Your task to perform on an android device: What is the price of a 12' ladder at Lowes? Image 0: 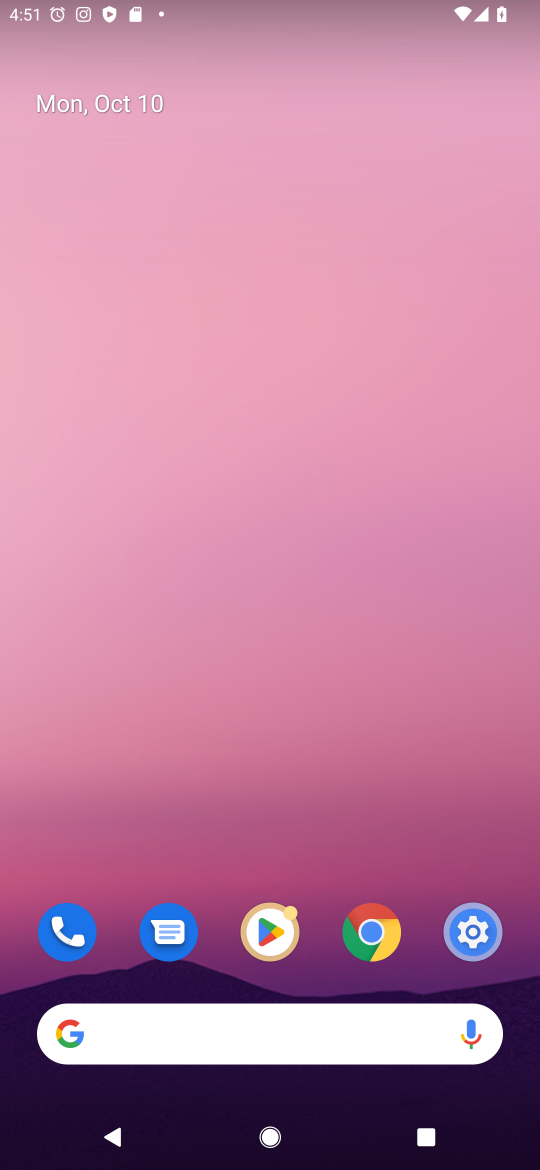
Step 0: press home button
Your task to perform on an android device: What is the price of a 12' ladder at Lowes? Image 1: 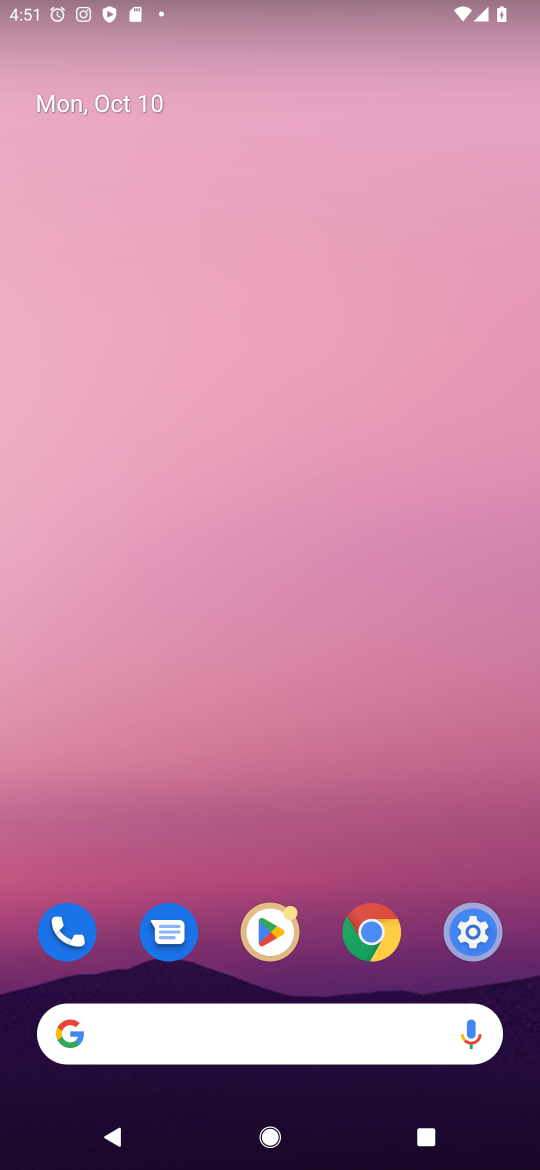
Step 1: click (287, 1035)
Your task to perform on an android device: What is the price of a 12' ladder at Lowes? Image 2: 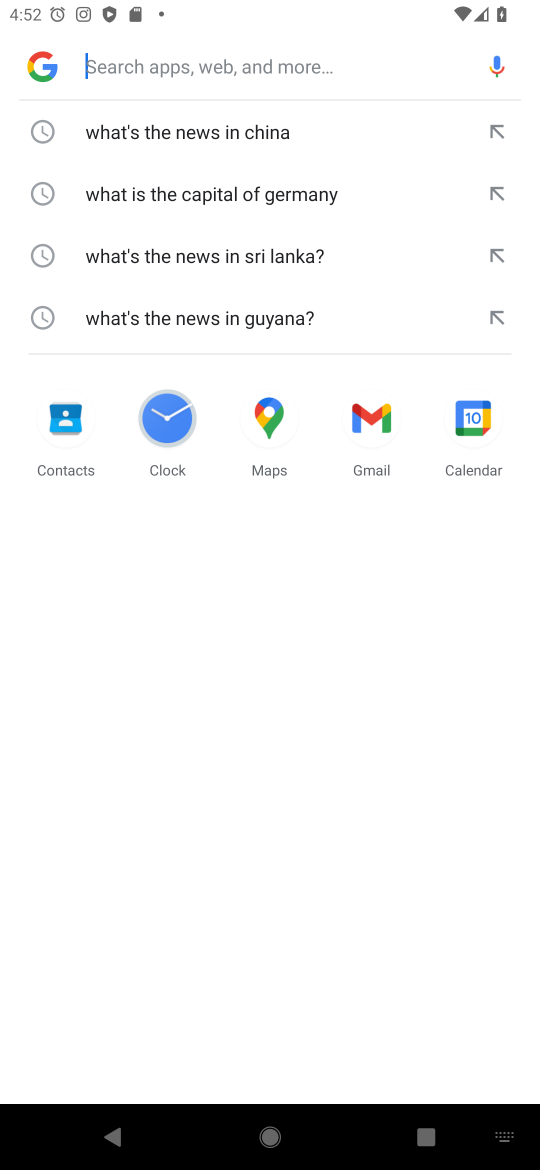
Step 2: type "What is the price of a 12' ladder at Lowes"
Your task to perform on an android device: What is the price of a 12' ladder at Lowes? Image 3: 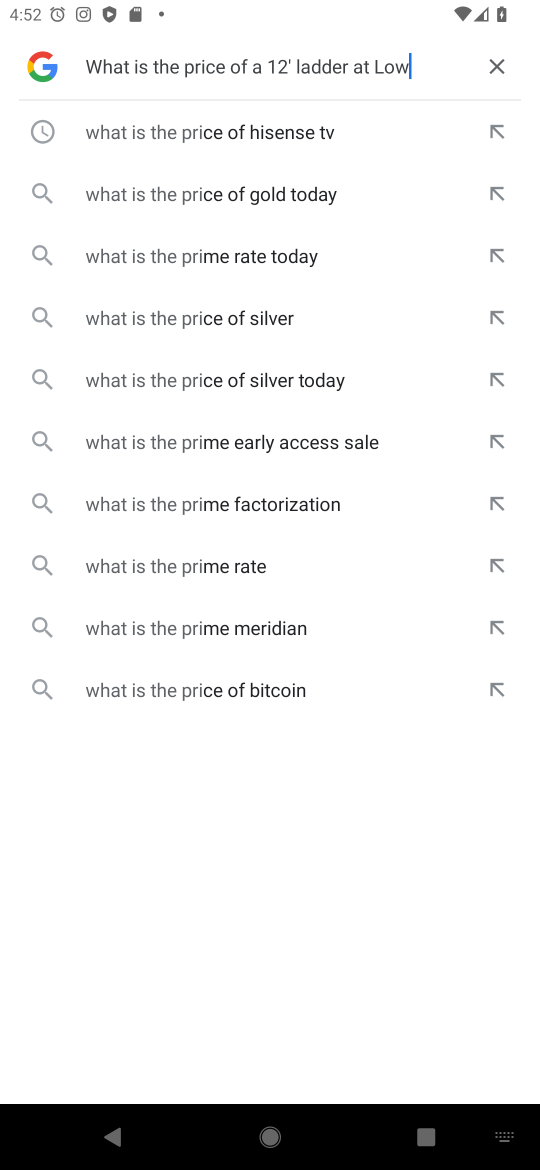
Step 3: press enter
Your task to perform on an android device: What is the price of a 12' ladder at Lowes? Image 4: 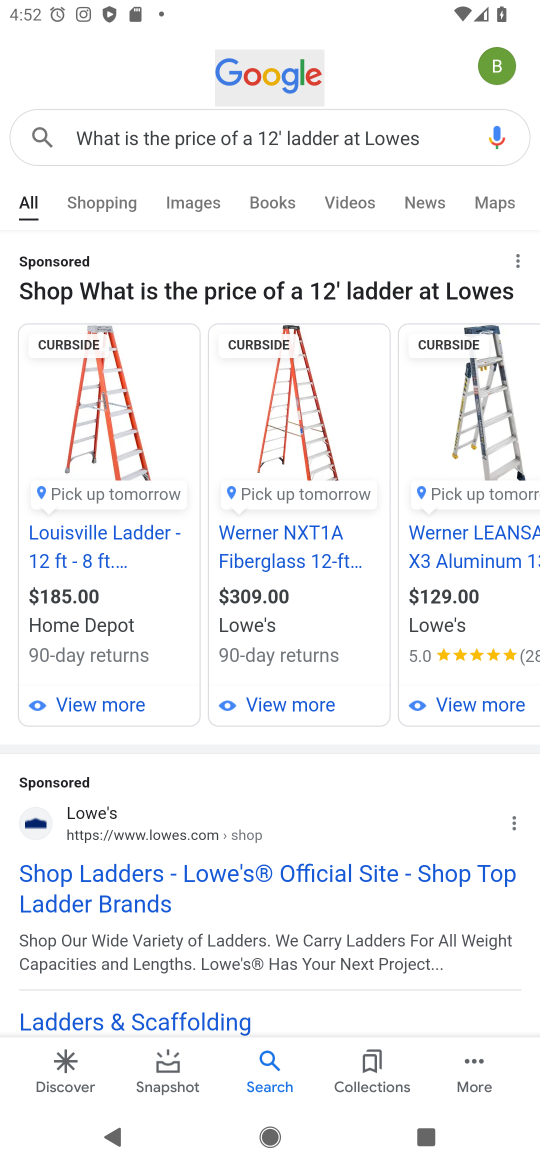
Step 4: task complete